Your task to perform on an android device: set the timer Image 0: 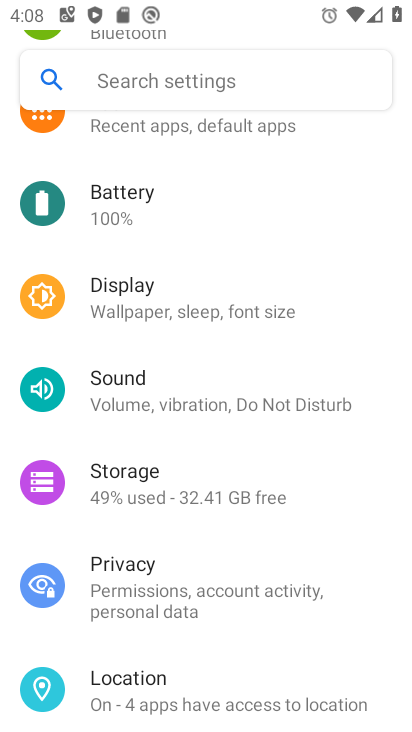
Step 0: press home button
Your task to perform on an android device: set the timer Image 1: 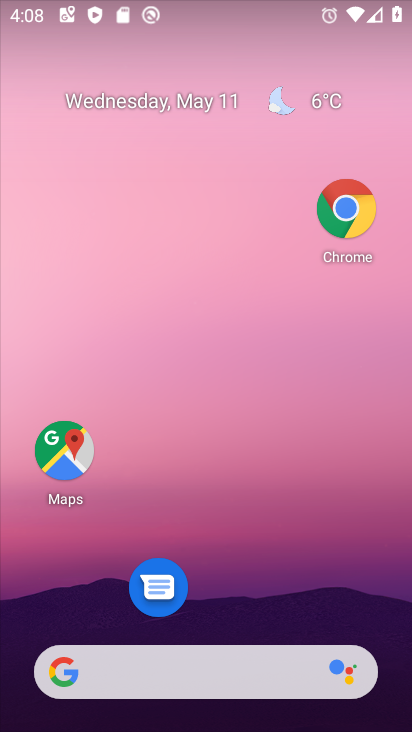
Step 1: drag from (276, 611) to (163, 118)
Your task to perform on an android device: set the timer Image 2: 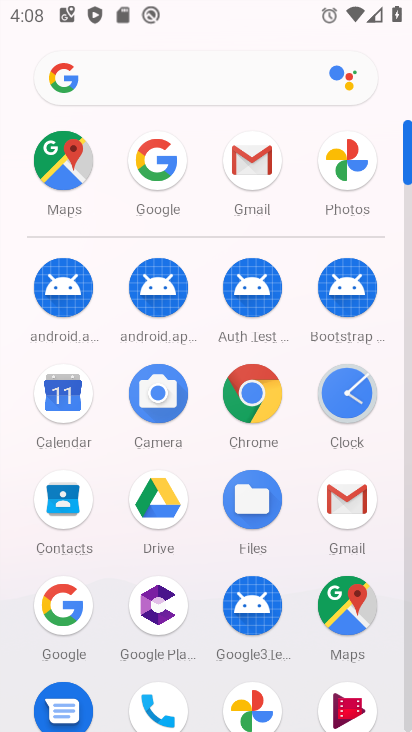
Step 2: click (347, 395)
Your task to perform on an android device: set the timer Image 3: 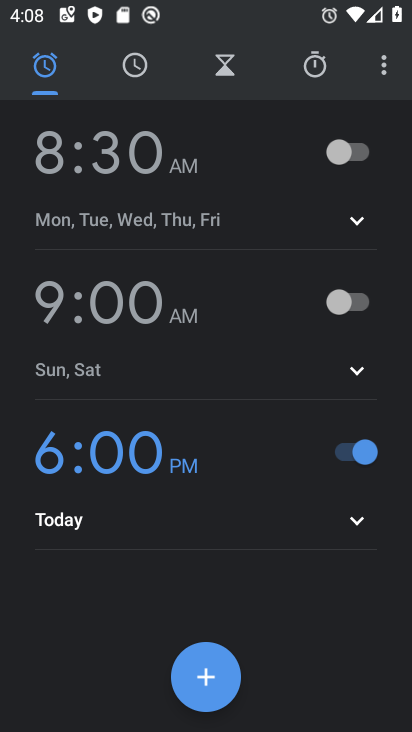
Step 3: click (218, 57)
Your task to perform on an android device: set the timer Image 4: 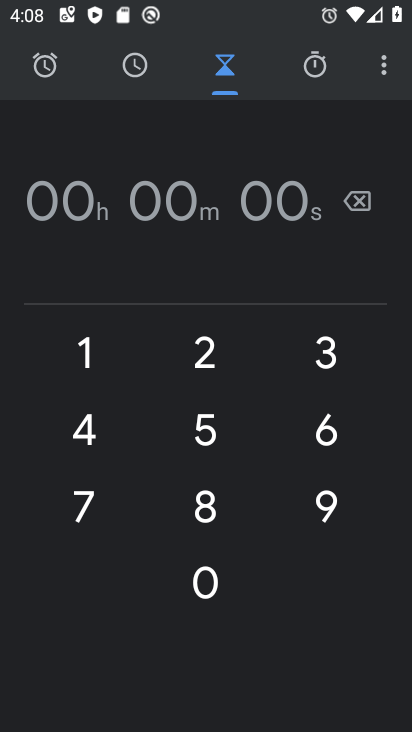
Step 4: click (89, 332)
Your task to perform on an android device: set the timer Image 5: 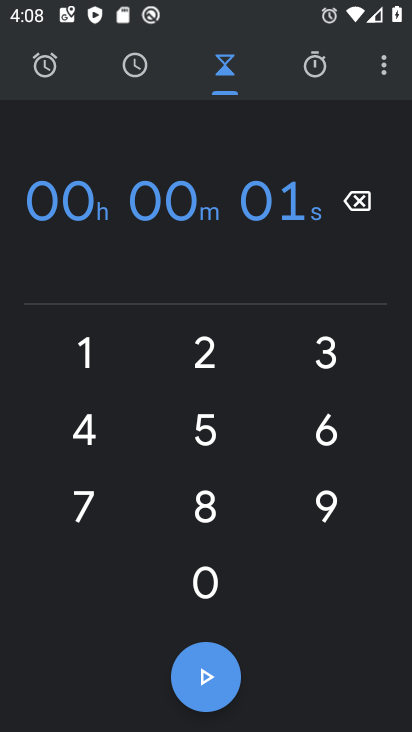
Step 5: click (173, 367)
Your task to perform on an android device: set the timer Image 6: 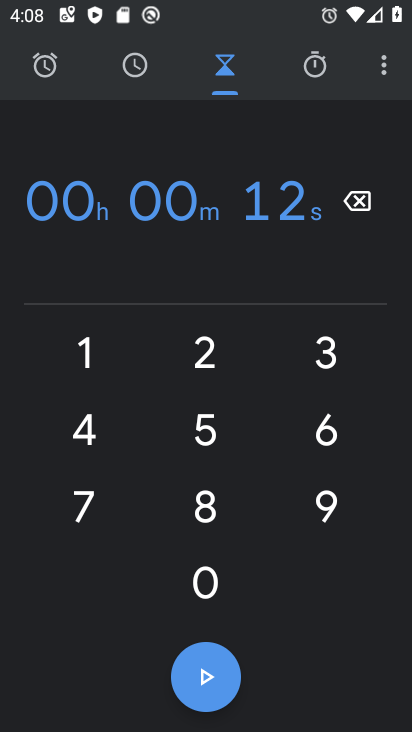
Step 6: click (341, 349)
Your task to perform on an android device: set the timer Image 7: 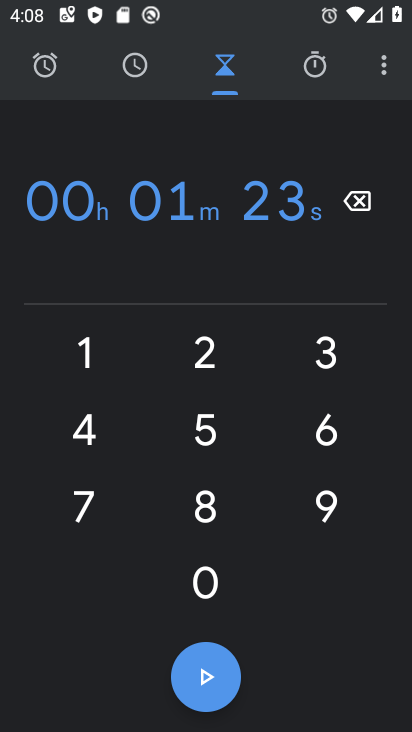
Step 7: click (79, 444)
Your task to perform on an android device: set the timer Image 8: 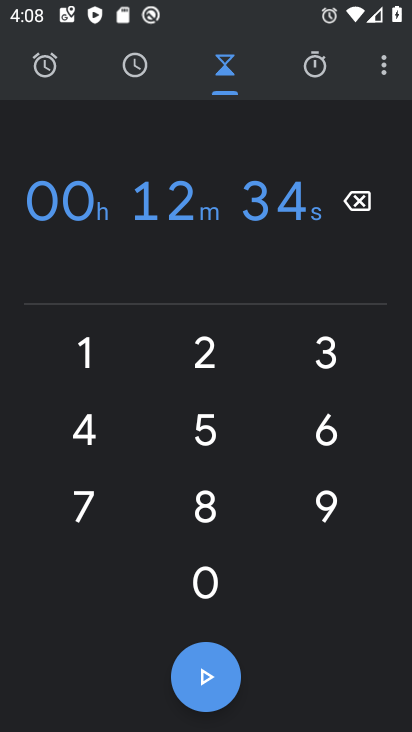
Step 8: click (204, 440)
Your task to perform on an android device: set the timer Image 9: 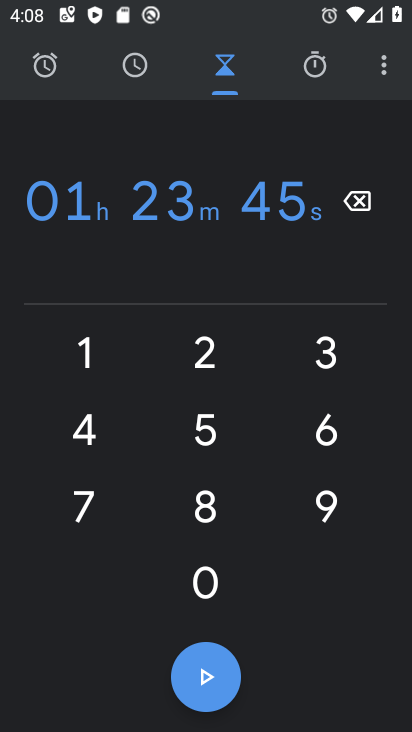
Step 9: click (202, 672)
Your task to perform on an android device: set the timer Image 10: 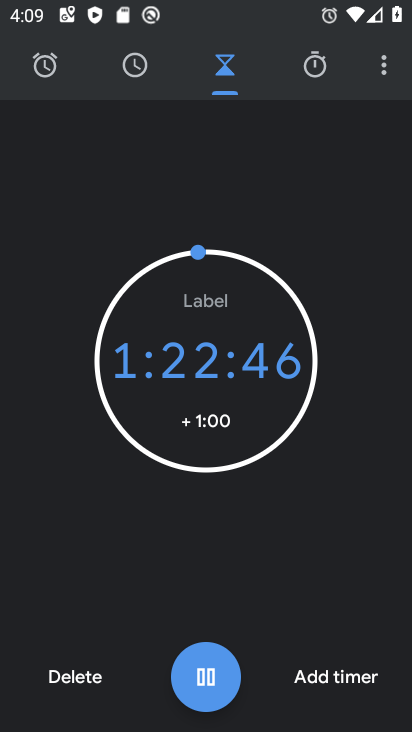
Step 10: task complete